Your task to perform on an android device: toggle translation in the chrome app Image 0: 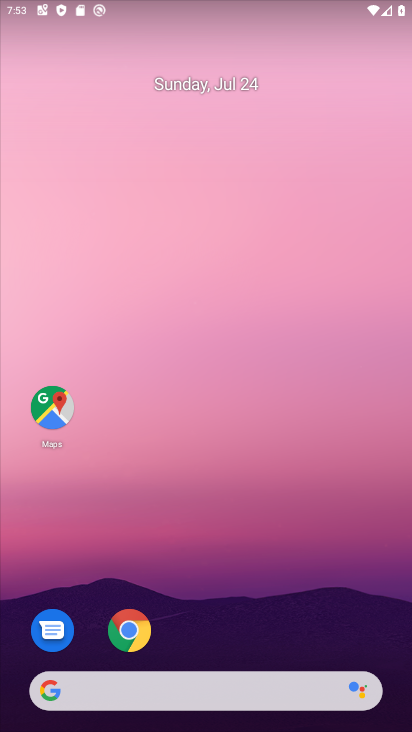
Step 0: click (127, 642)
Your task to perform on an android device: toggle translation in the chrome app Image 1: 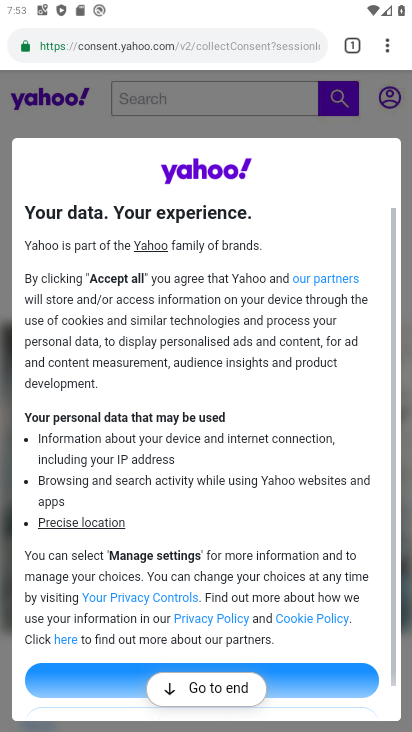
Step 1: click (381, 47)
Your task to perform on an android device: toggle translation in the chrome app Image 2: 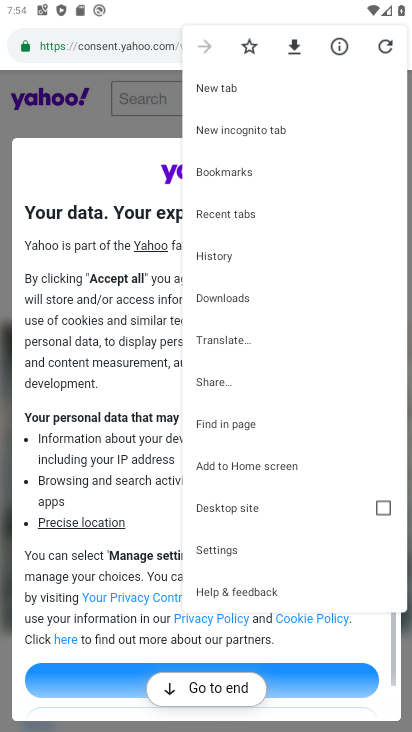
Step 2: click (267, 549)
Your task to perform on an android device: toggle translation in the chrome app Image 3: 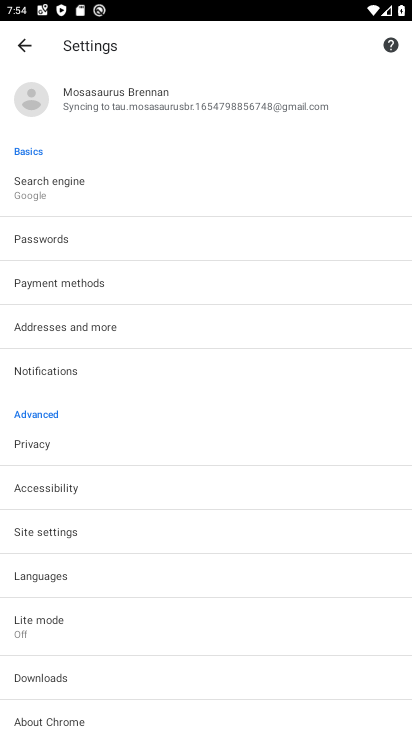
Step 3: click (108, 584)
Your task to perform on an android device: toggle translation in the chrome app Image 4: 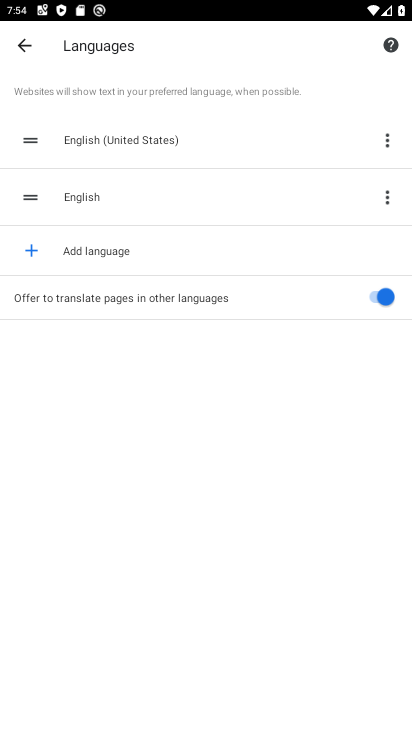
Step 4: click (372, 296)
Your task to perform on an android device: toggle translation in the chrome app Image 5: 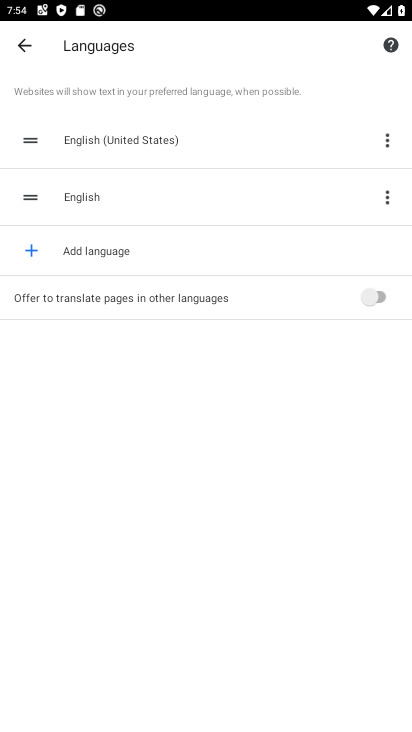
Step 5: task complete